Your task to perform on an android device: choose inbox layout in the gmail app Image 0: 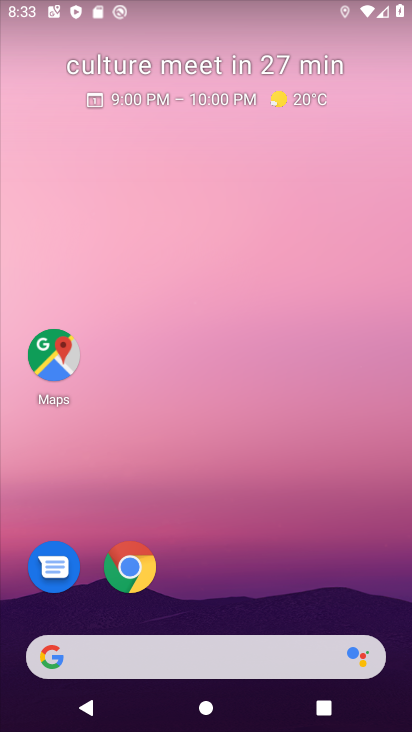
Step 0: drag from (189, 625) to (221, 60)
Your task to perform on an android device: choose inbox layout in the gmail app Image 1: 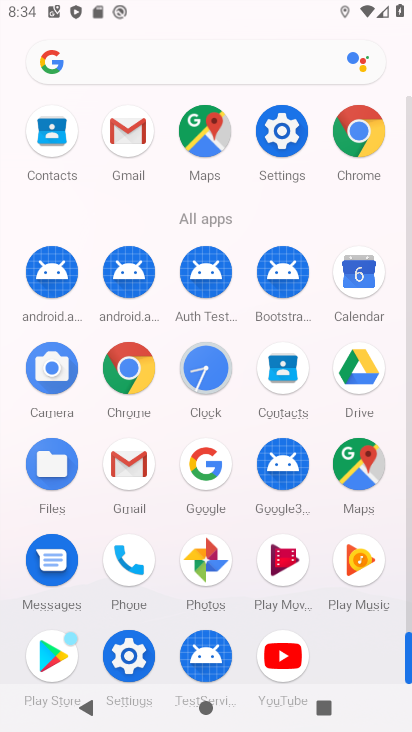
Step 1: click (135, 111)
Your task to perform on an android device: choose inbox layout in the gmail app Image 2: 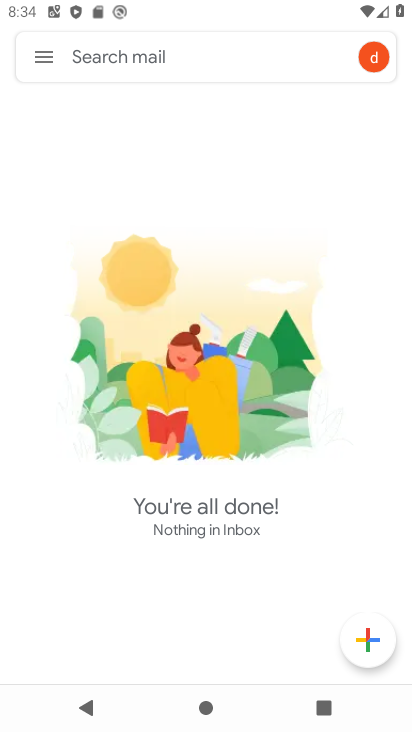
Step 2: click (42, 52)
Your task to perform on an android device: choose inbox layout in the gmail app Image 3: 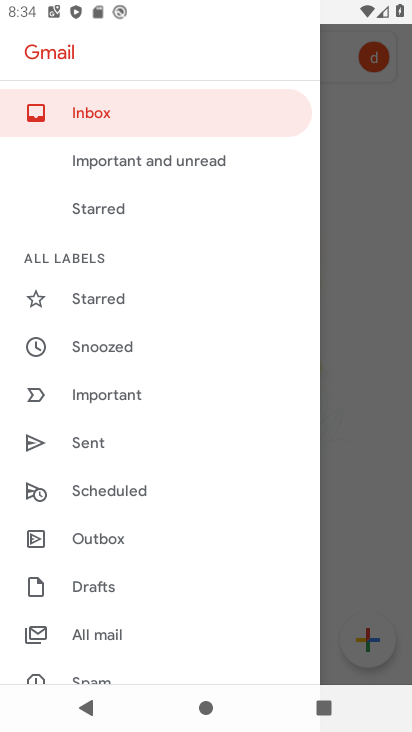
Step 3: drag from (110, 653) to (119, 306)
Your task to perform on an android device: choose inbox layout in the gmail app Image 4: 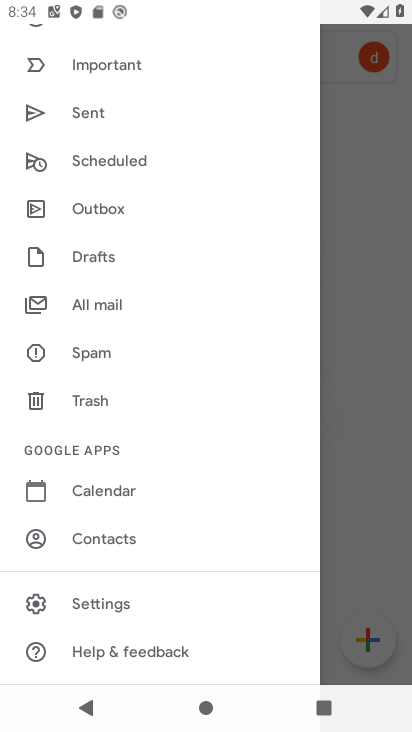
Step 4: click (98, 594)
Your task to perform on an android device: choose inbox layout in the gmail app Image 5: 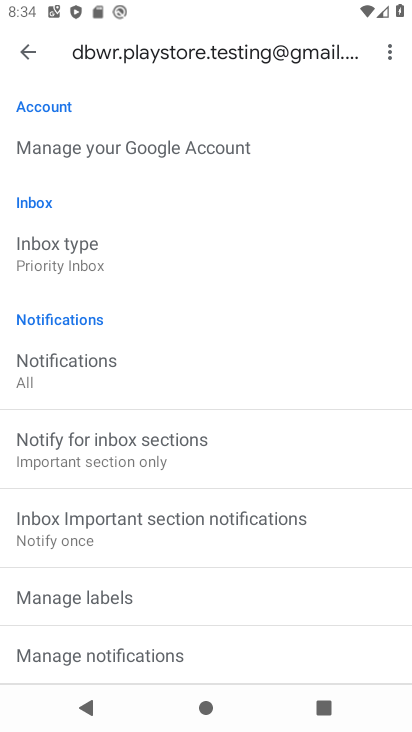
Step 5: click (121, 250)
Your task to perform on an android device: choose inbox layout in the gmail app Image 6: 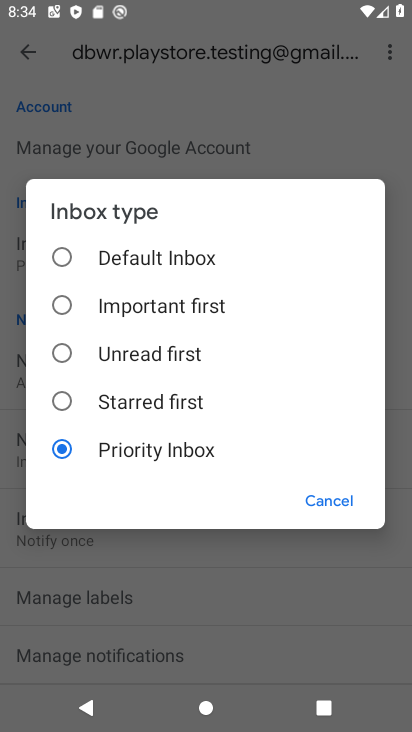
Step 6: click (142, 364)
Your task to perform on an android device: choose inbox layout in the gmail app Image 7: 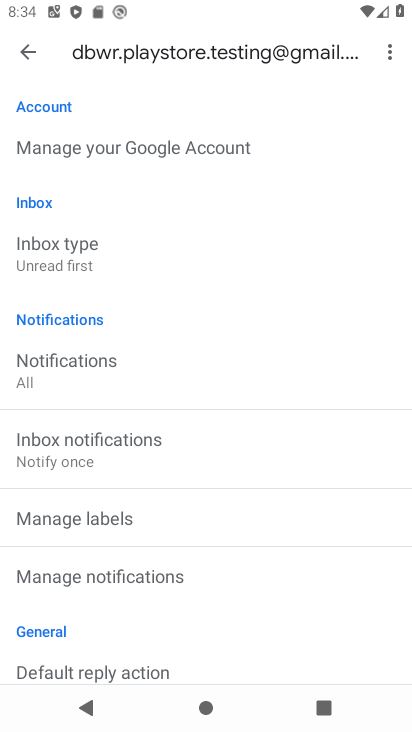
Step 7: task complete